Your task to perform on an android device: Open the Play Movies app and select the watchlist tab. Image 0: 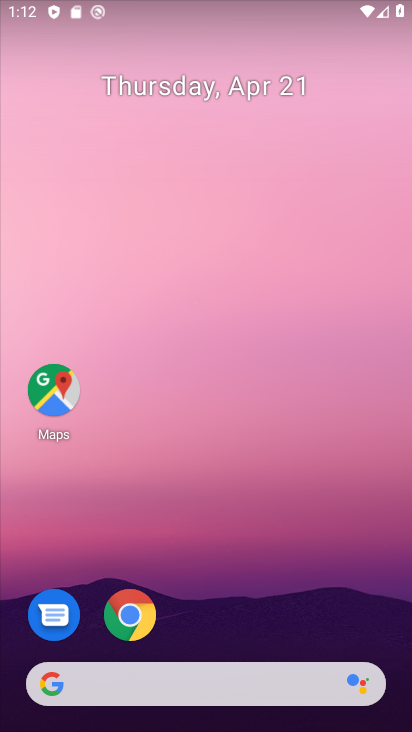
Step 0: drag from (216, 466) to (218, 117)
Your task to perform on an android device: Open the Play Movies app and select the watchlist tab. Image 1: 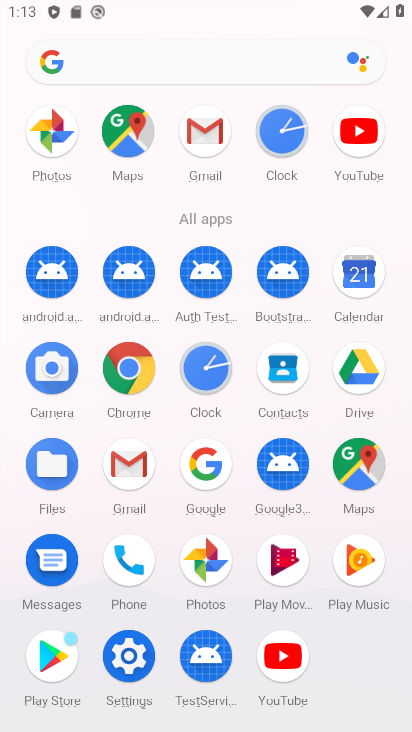
Step 1: click (285, 563)
Your task to perform on an android device: Open the Play Movies app and select the watchlist tab. Image 2: 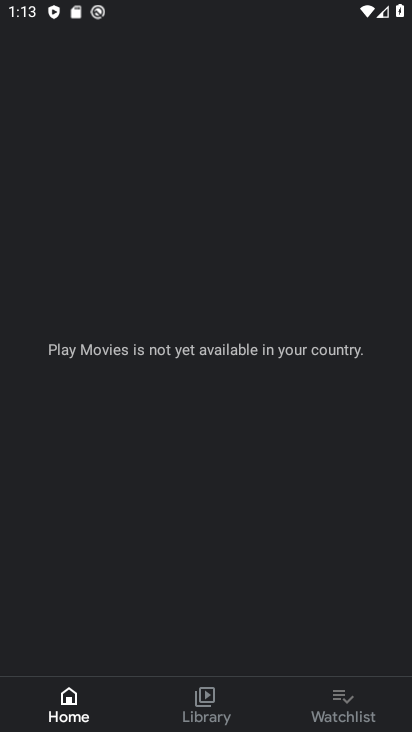
Step 2: click (353, 703)
Your task to perform on an android device: Open the Play Movies app and select the watchlist tab. Image 3: 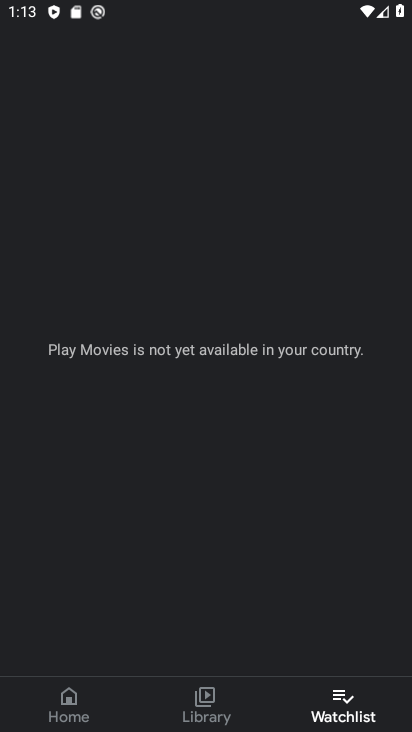
Step 3: task complete